Your task to perform on an android device: Open wifi settings Image 0: 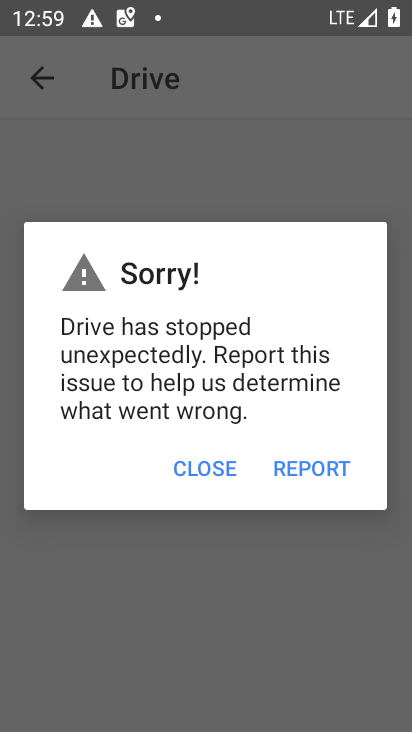
Step 0: press home button
Your task to perform on an android device: Open wifi settings Image 1: 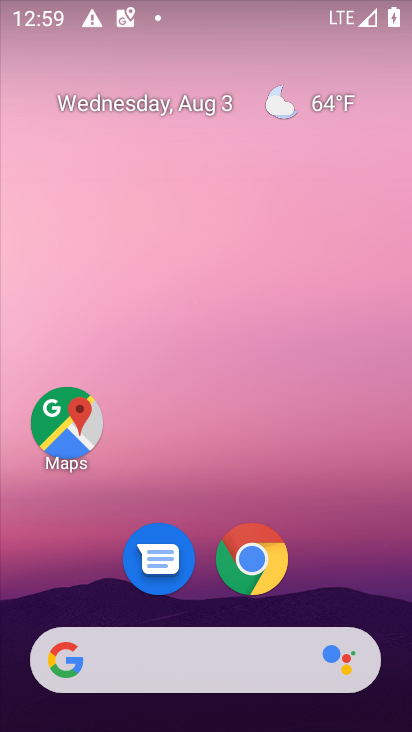
Step 1: drag from (216, 605) to (194, 101)
Your task to perform on an android device: Open wifi settings Image 2: 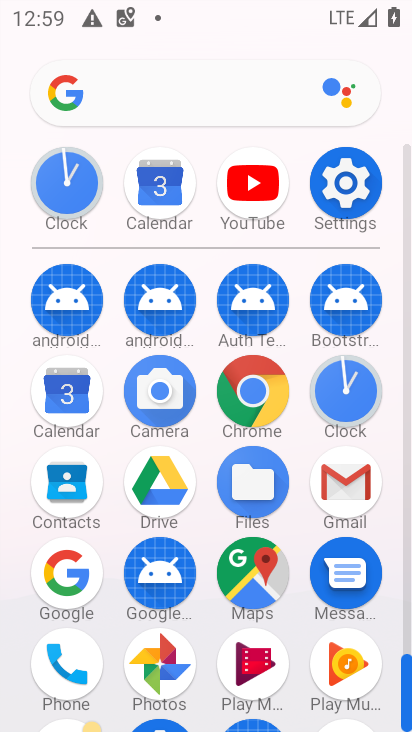
Step 2: click (354, 189)
Your task to perform on an android device: Open wifi settings Image 3: 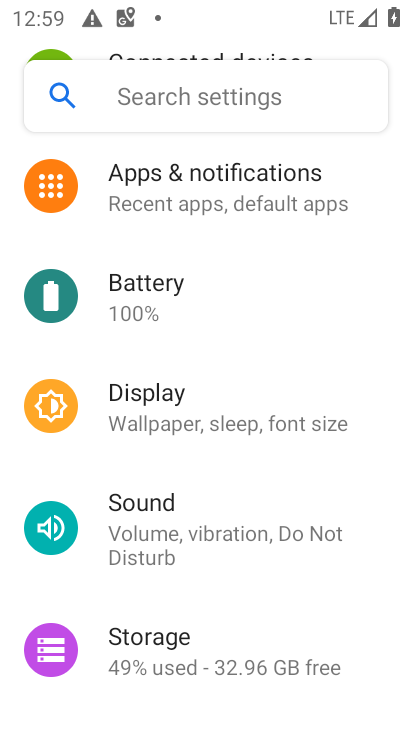
Step 3: drag from (228, 151) to (212, 651)
Your task to perform on an android device: Open wifi settings Image 4: 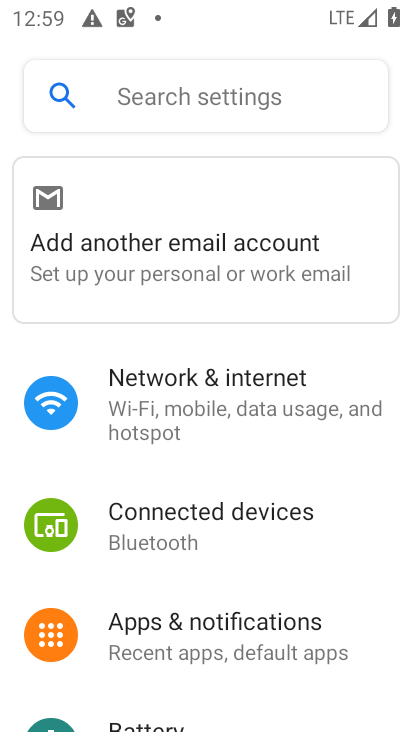
Step 4: click (159, 388)
Your task to perform on an android device: Open wifi settings Image 5: 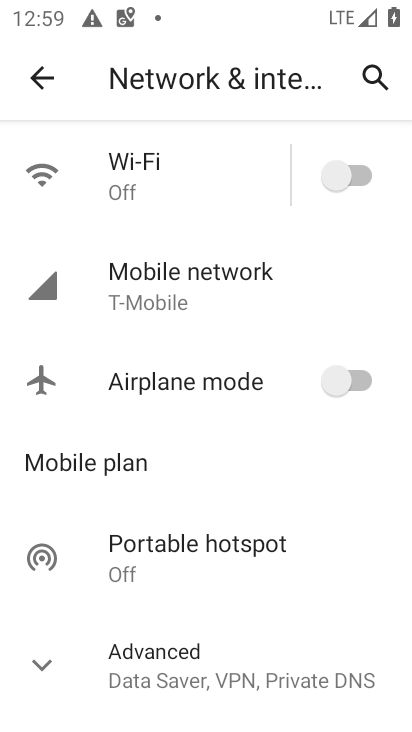
Step 5: click (137, 158)
Your task to perform on an android device: Open wifi settings Image 6: 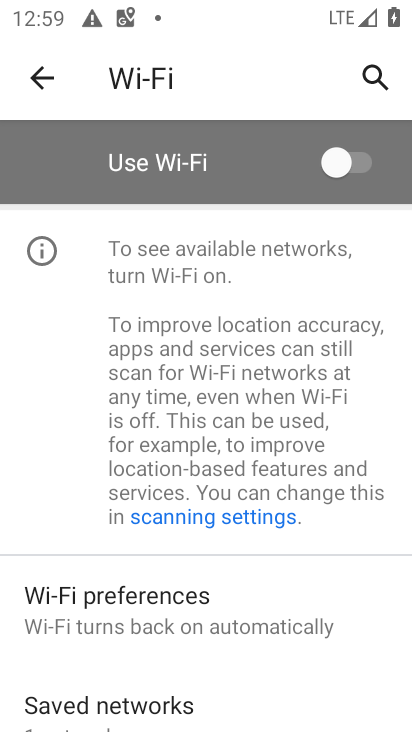
Step 6: task complete